Your task to perform on an android device: Play the last video I watched on Youtube Image 0: 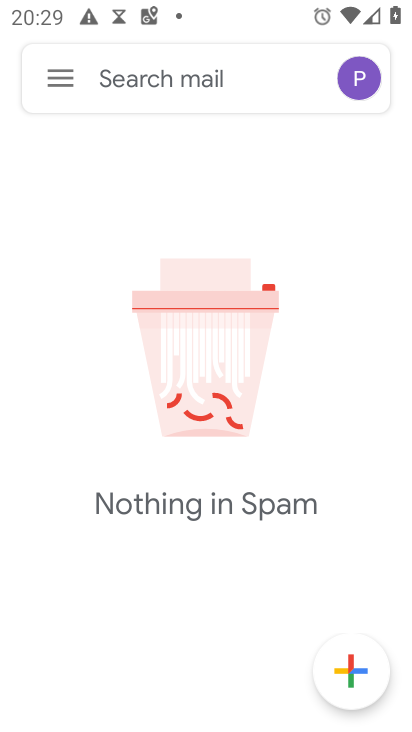
Step 0: press home button
Your task to perform on an android device: Play the last video I watched on Youtube Image 1: 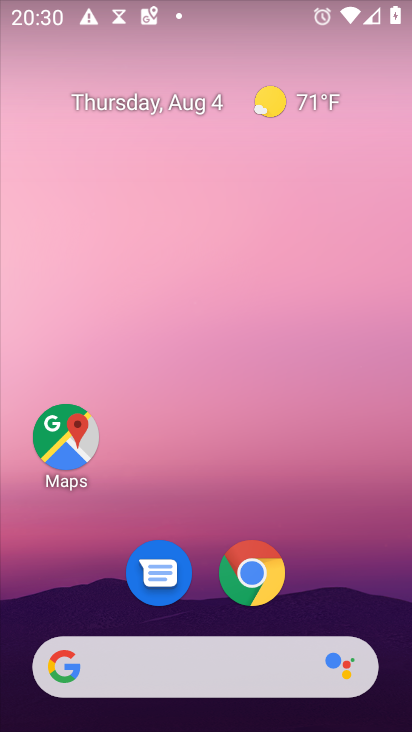
Step 1: drag from (247, 655) to (233, 133)
Your task to perform on an android device: Play the last video I watched on Youtube Image 2: 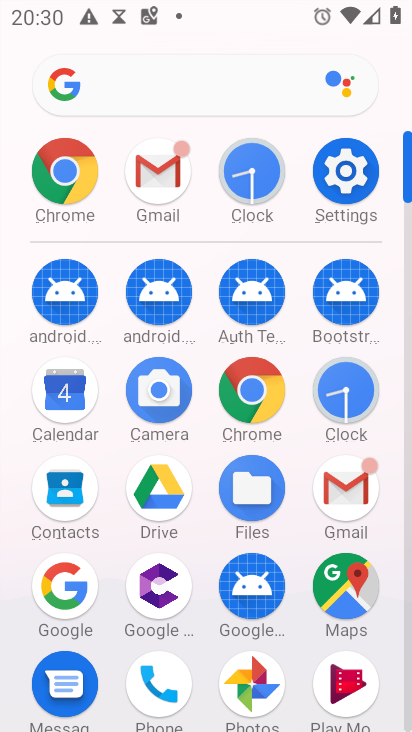
Step 2: drag from (209, 633) to (261, 125)
Your task to perform on an android device: Play the last video I watched on Youtube Image 3: 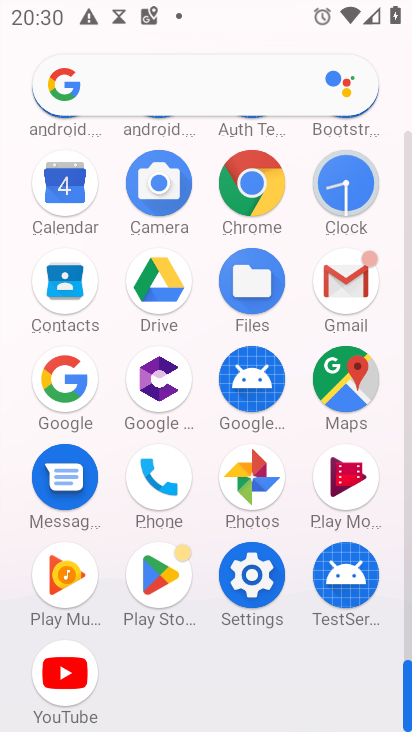
Step 3: click (71, 649)
Your task to perform on an android device: Play the last video I watched on Youtube Image 4: 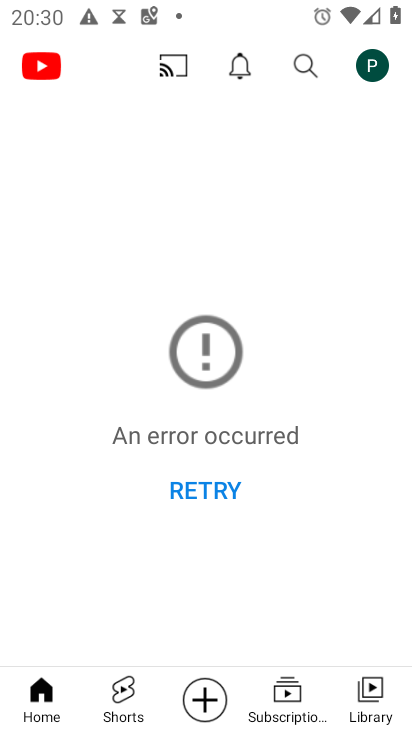
Step 4: click (364, 696)
Your task to perform on an android device: Play the last video I watched on Youtube Image 5: 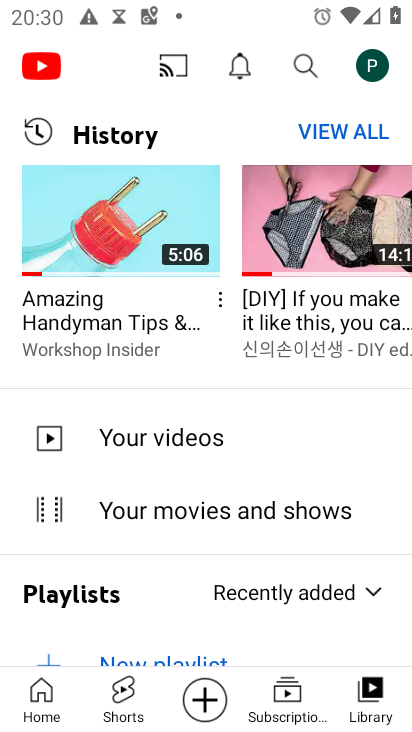
Step 5: click (102, 262)
Your task to perform on an android device: Play the last video I watched on Youtube Image 6: 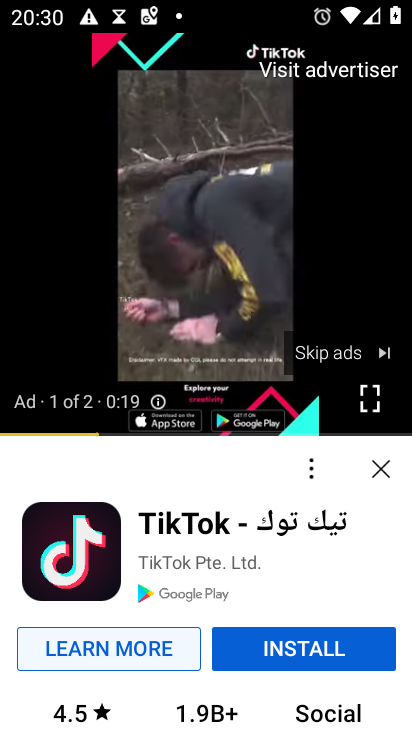
Step 6: task complete